Your task to perform on an android device: turn on sleep mode Image 0: 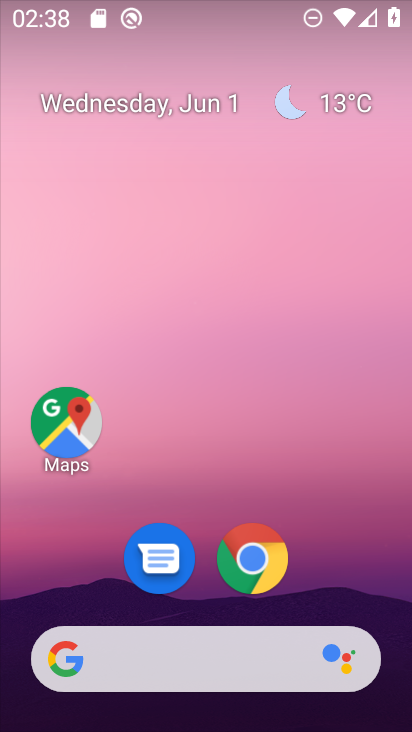
Step 0: drag from (392, 680) to (344, 144)
Your task to perform on an android device: turn on sleep mode Image 1: 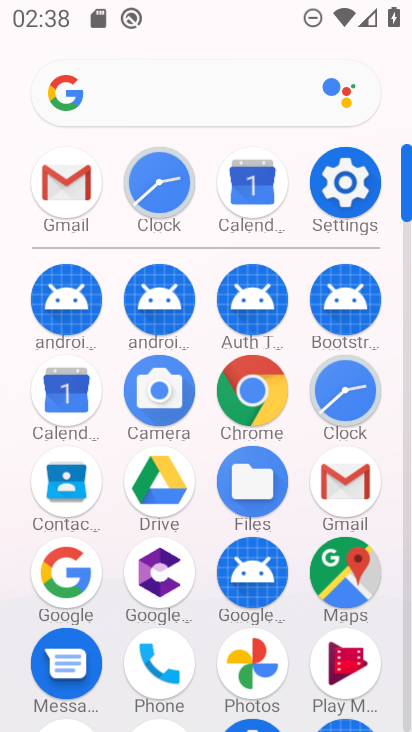
Step 1: click (345, 186)
Your task to perform on an android device: turn on sleep mode Image 2: 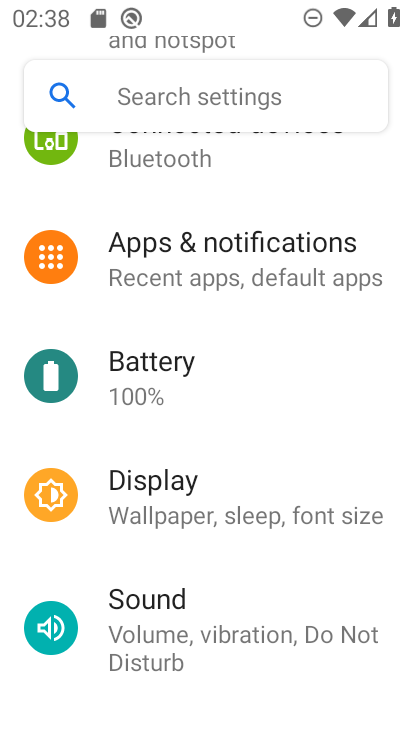
Step 2: drag from (246, 641) to (244, 579)
Your task to perform on an android device: turn on sleep mode Image 3: 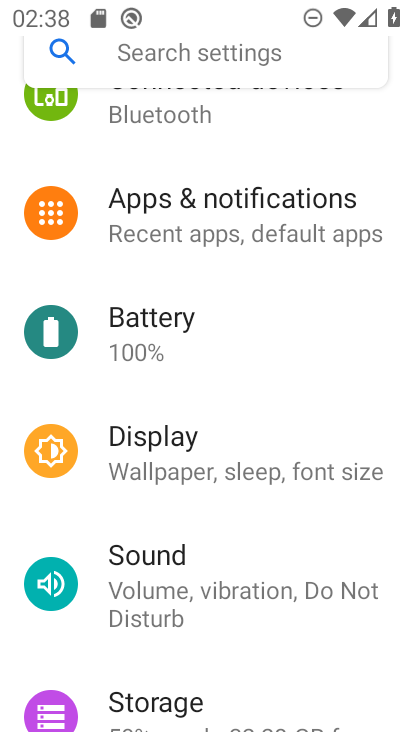
Step 3: click (186, 469)
Your task to perform on an android device: turn on sleep mode Image 4: 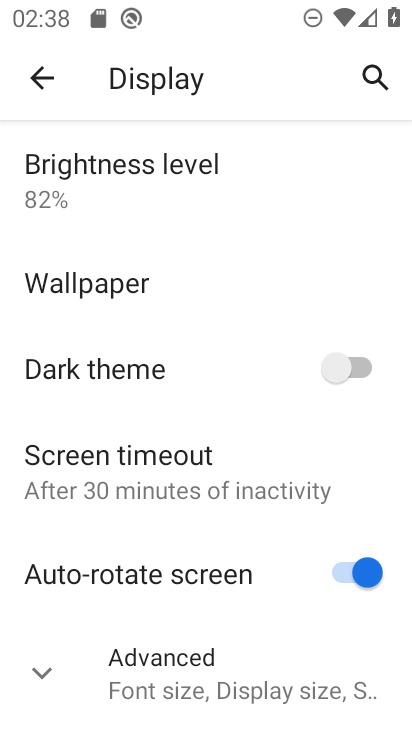
Step 4: click (126, 481)
Your task to perform on an android device: turn on sleep mode Image 5: 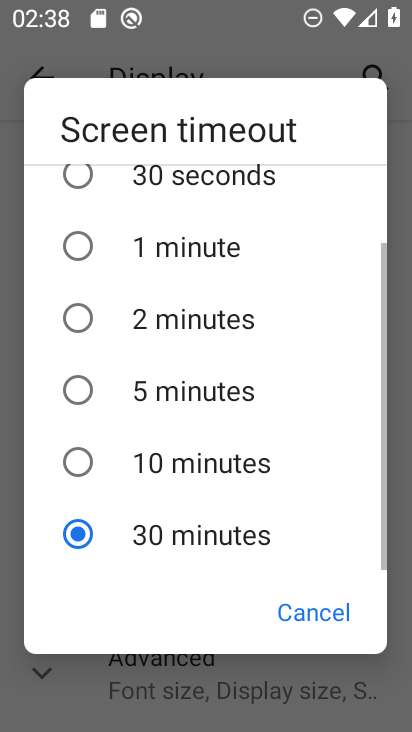
Step 5: task complete